Your task to perform on an android device: delete browsing data in the chrome app Image 0: 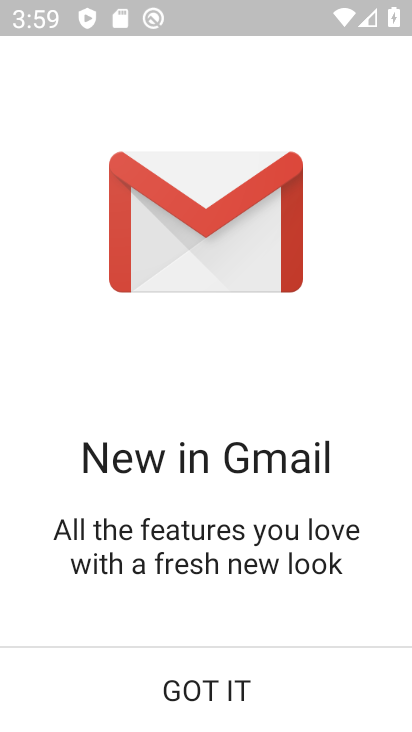
Step 0: press home button
Your task to perform on an android device: delete browsing data in the chrome app Image 1: 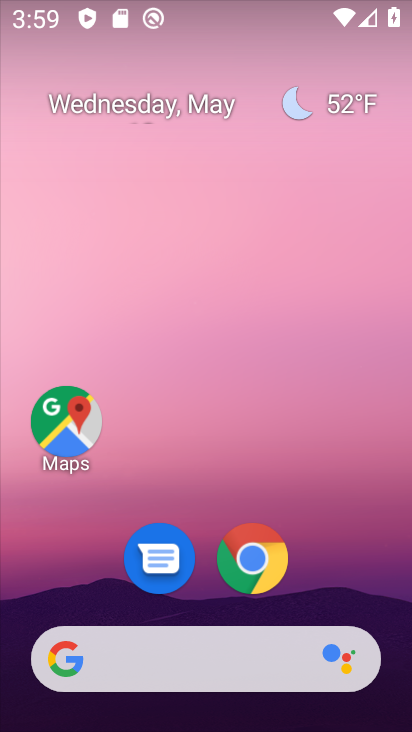
Step 1: click (261, 554)
Your task to perform on an android device: delete browsing data in the chrome app Image 2: 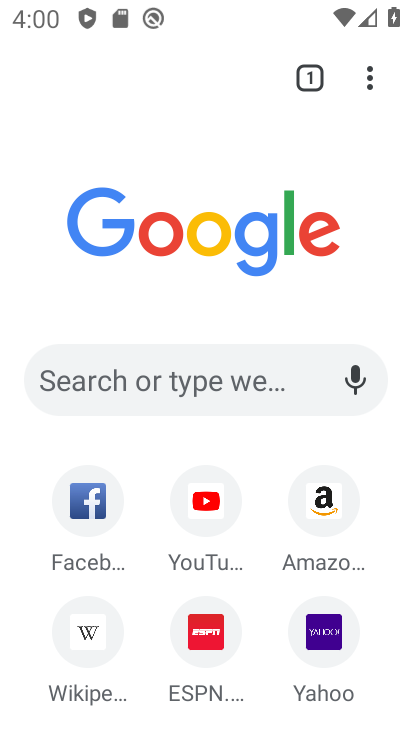
Step 2: task complete